Your task to perform on an android device: move an email to a new category in the gmail app Image 0: 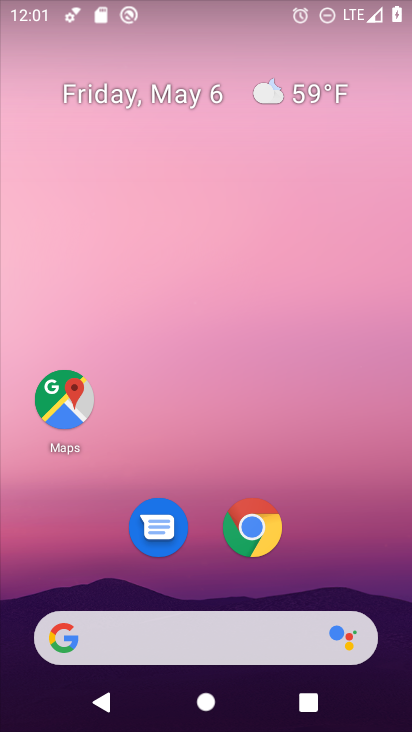
Step 0: drag from (269, 702) to (242, 204)
Your task to perform on an android device: move an email to a new category in the gmail app Image 1: 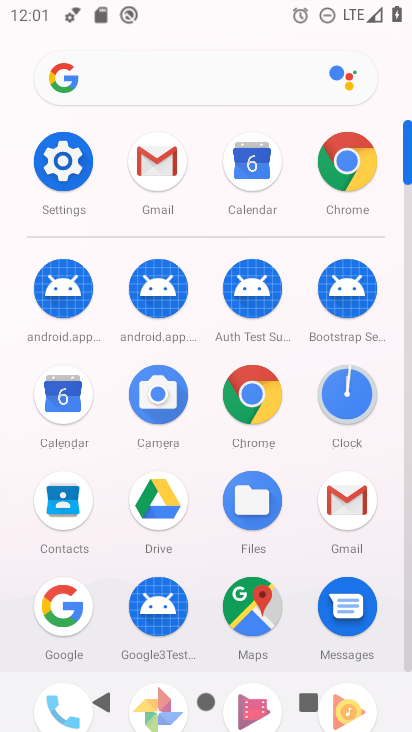
Step 1: click (149, 159)
Your task to perform on an android device: move an email to a new category in the gmail app Image 2: 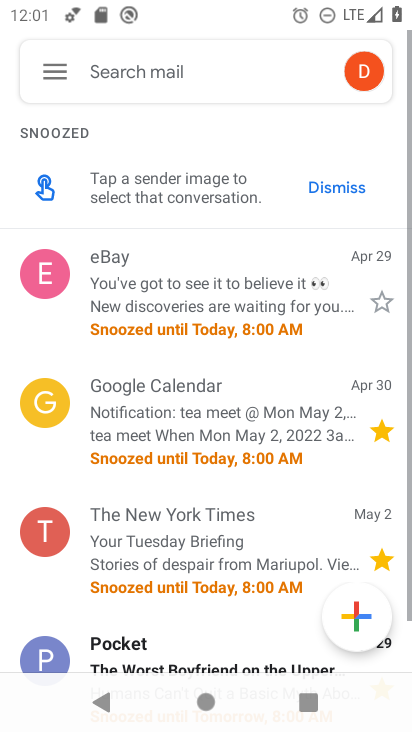
Step 2: click (266, 318)
Your task to perform on an android device: move an email to a new category in the gmail app Image 3: 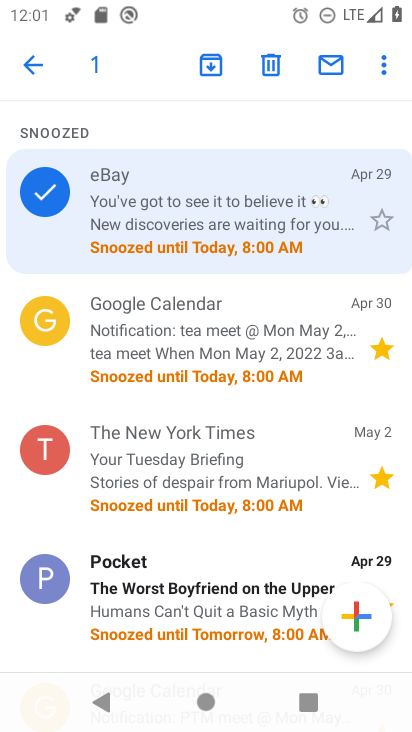
Step 3: click (378, 60)
Your task to perform on an android device: move an email to a new category in the gmail app Image 4: 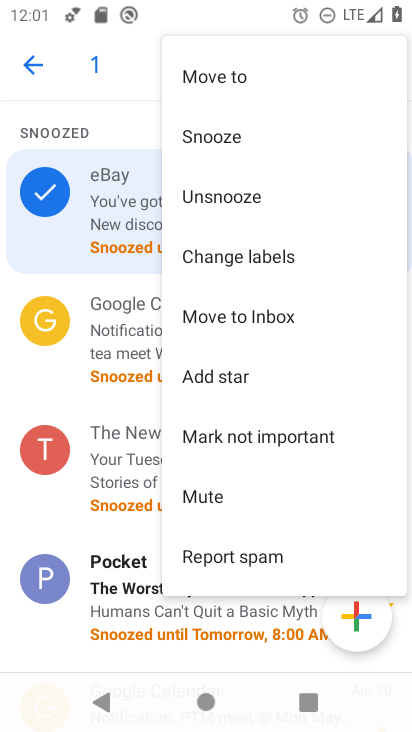
Step 4: click (254, 85)
Your task to perform on an android device: move an email to a new category in the gmail app Image 5: 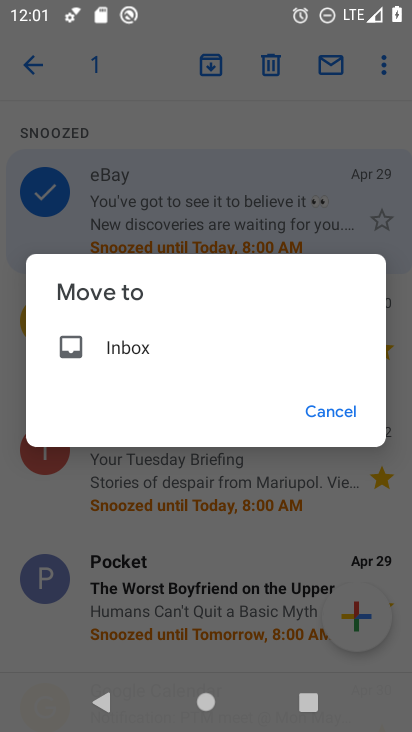
Step 5: click (174, 343)
Your task to perform on an android device: move an email to a new category in the gmail app Image 6: 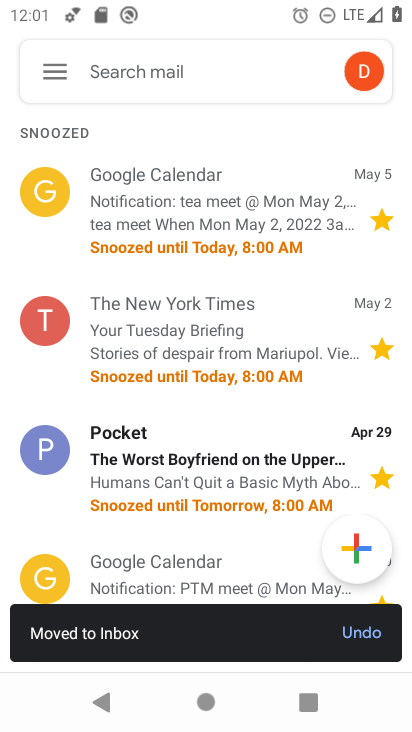
Step 6: task complete